Your task to perform on an android device: manage bookmarks in the chrome app Image 0: 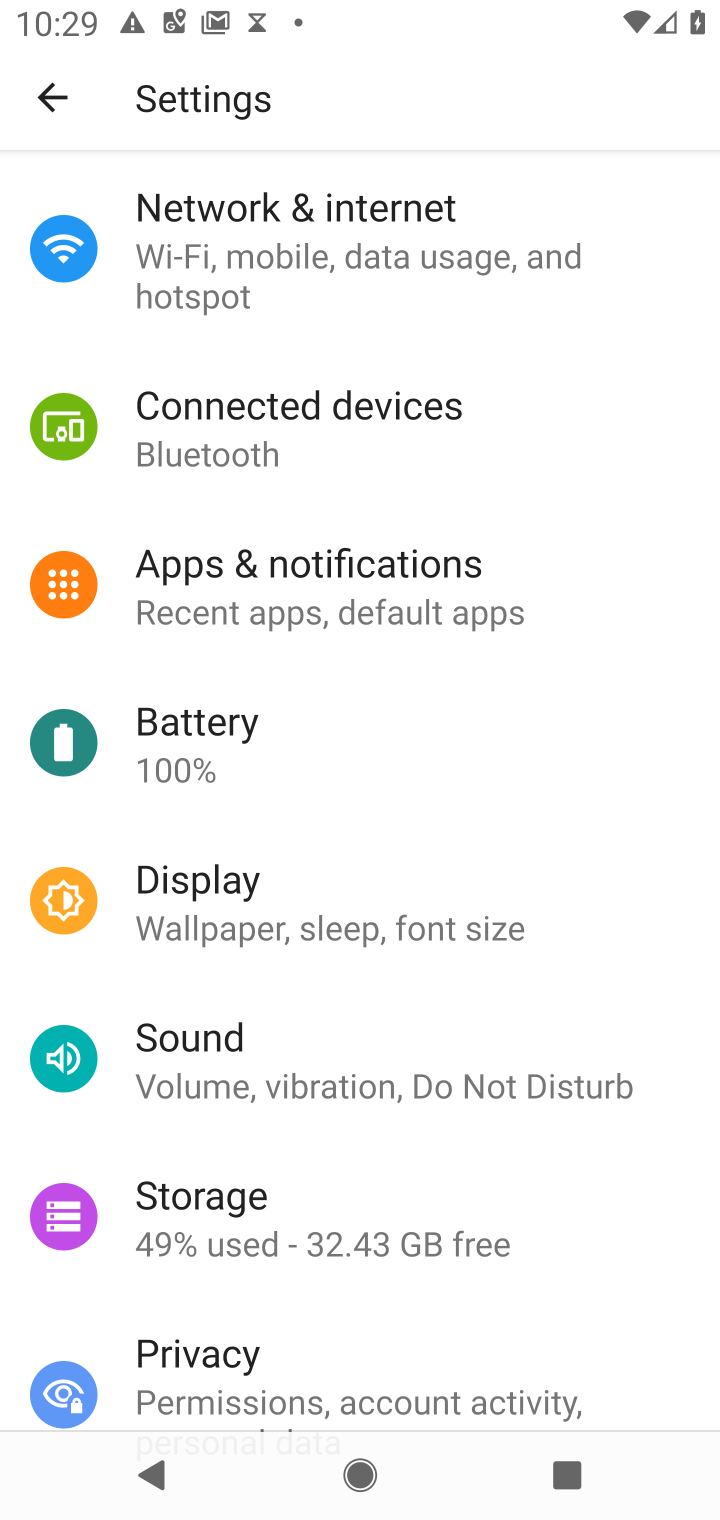
Step 0: press home button
Your task to perform on an android device: manage bookmarks in the chrome app Image 1: 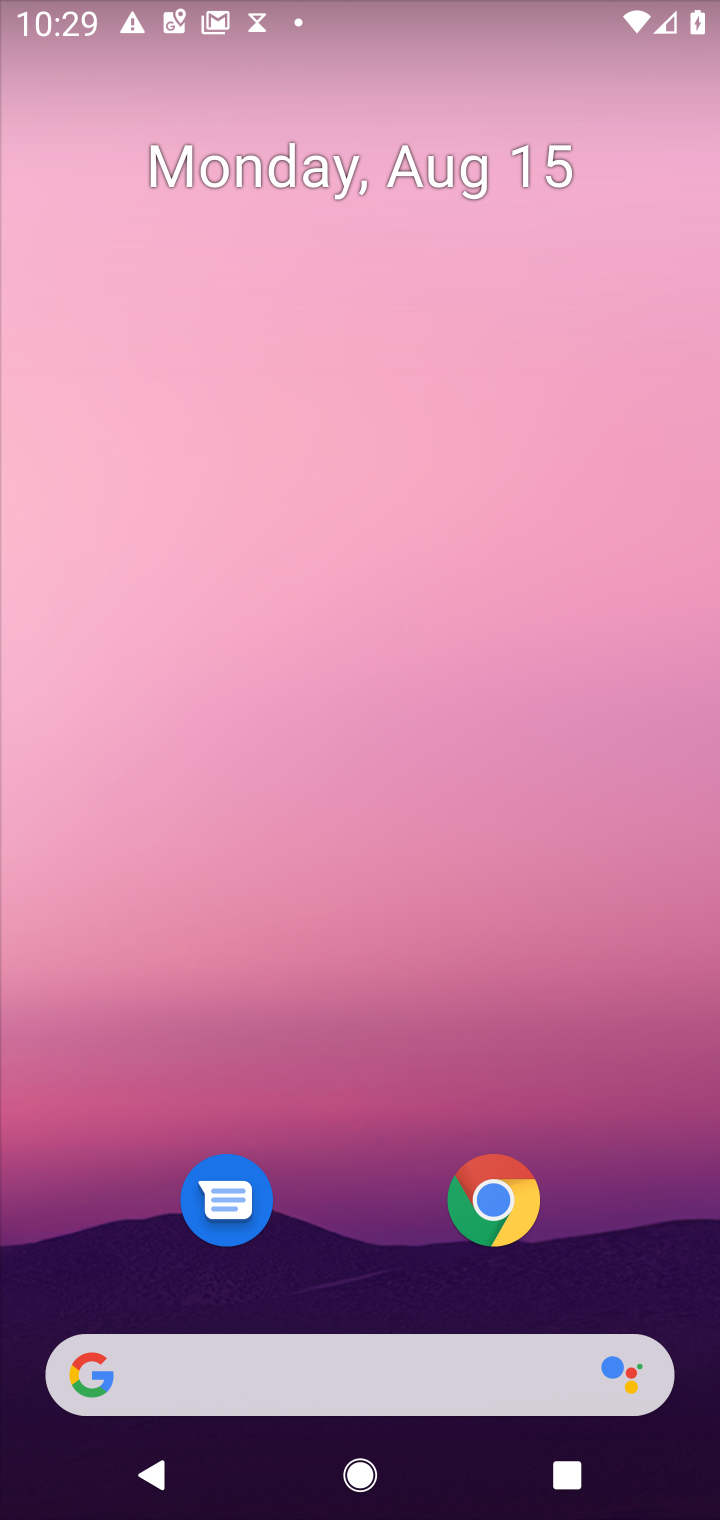
Step 1: click (516, 1196)
Your task to perform on an android device: manage bookmarks in the chrome app Image 2: 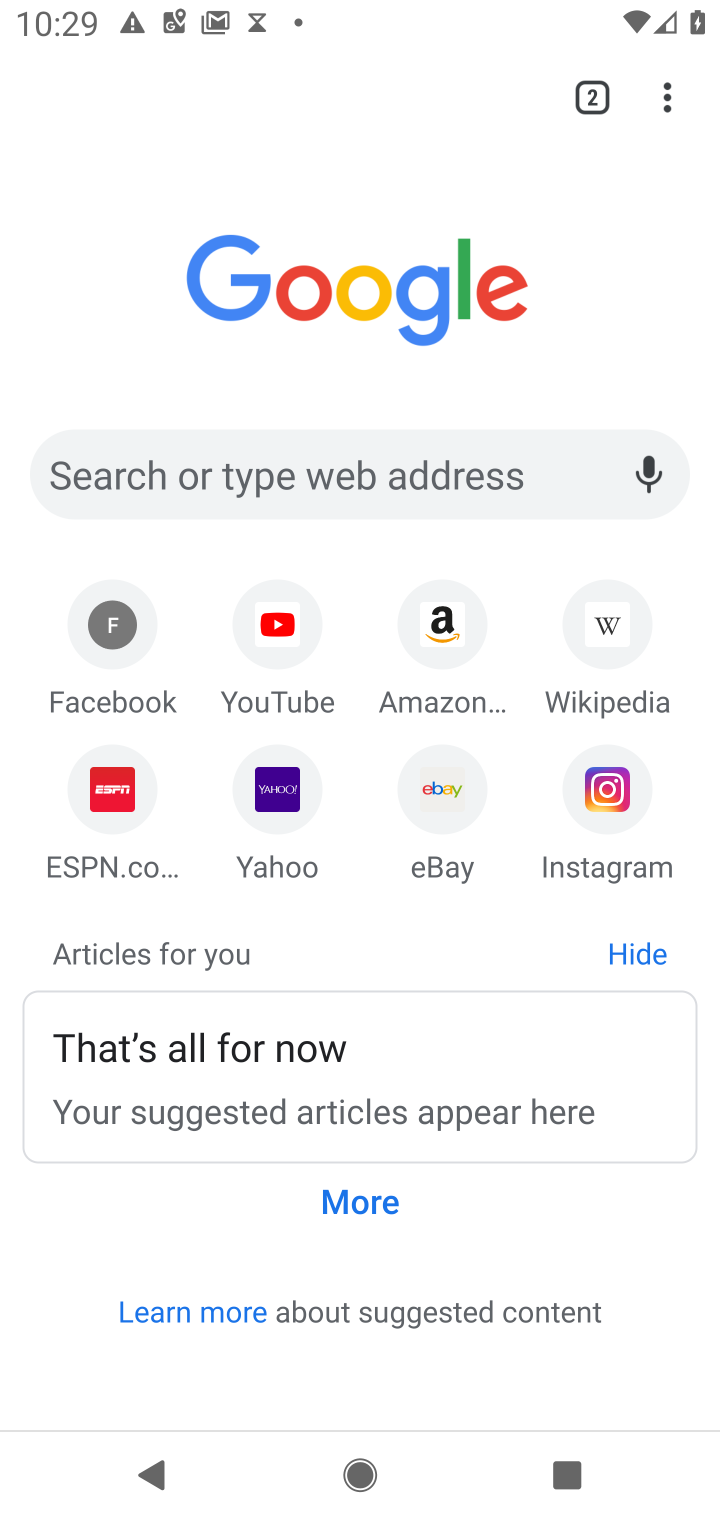
Step 2: click (668, 97)
Your task to perform on an android device: manage bookmarks in the chrome app Image 3: 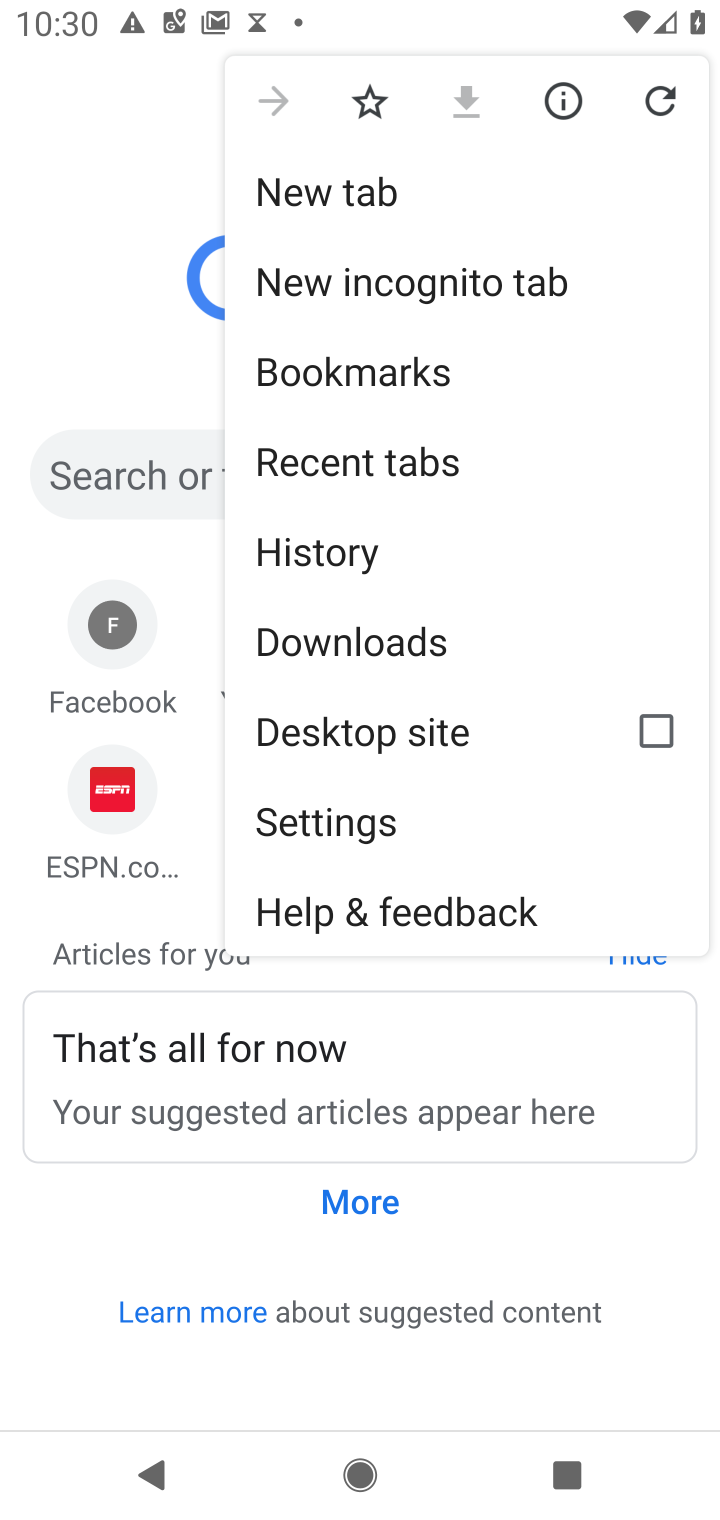
Step 3: click (397, 358)
Your task to perform on an android device: manage bookmarks in the chrome app Image 4: 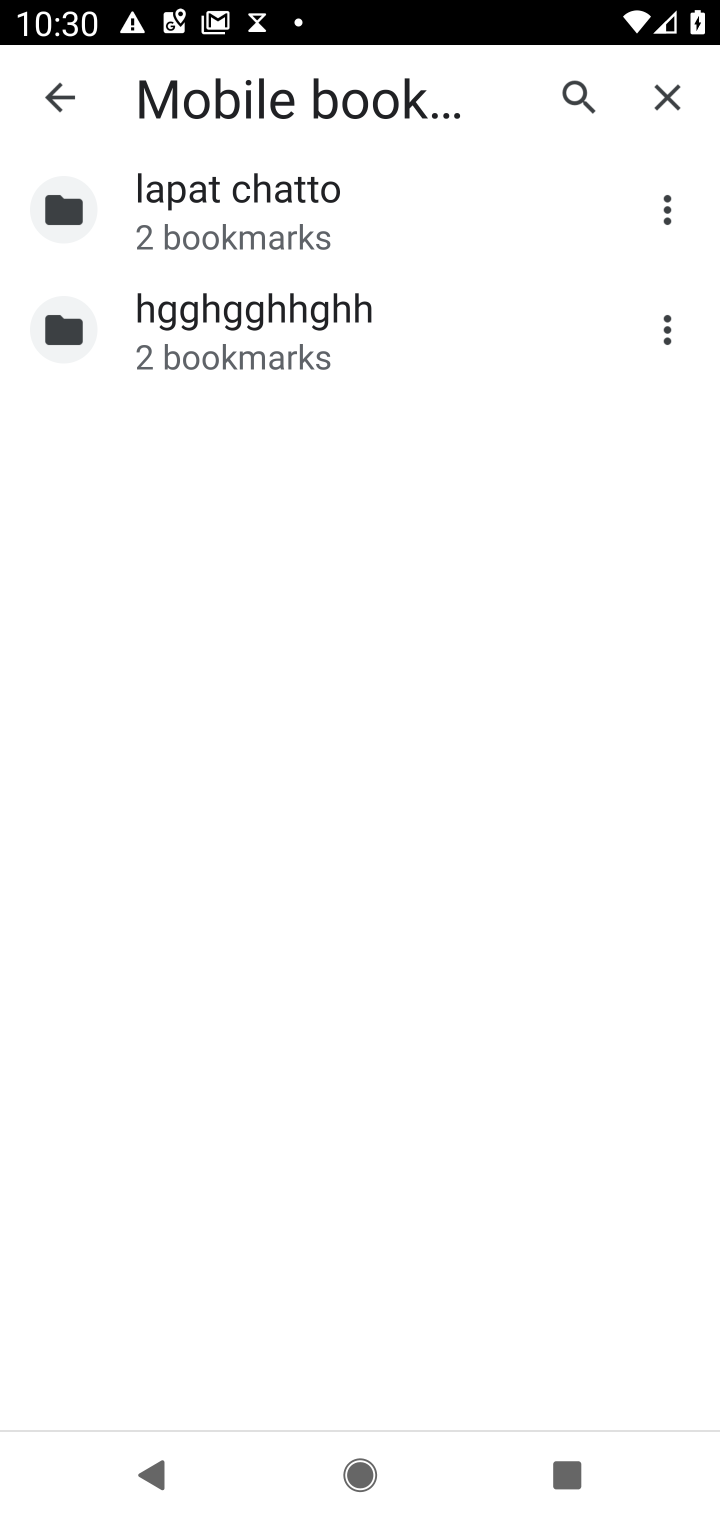
Step 4: click (230, 366)
Your task to perform on an android device: manage bookmarks in the chrome app Image 5: 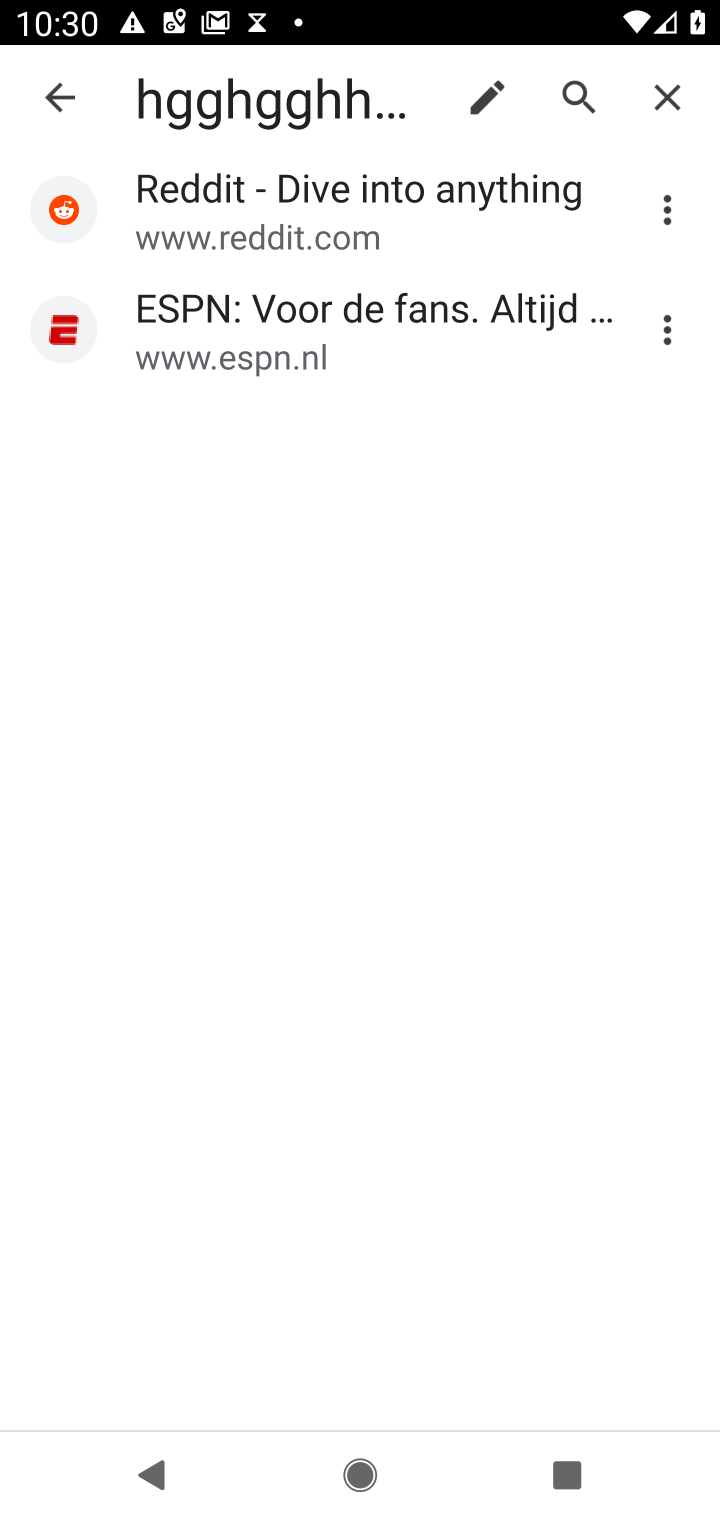
Step 5: click (660, 197)
Your task to perform on an android device: manage bookmarks in the chrome app Image 6: 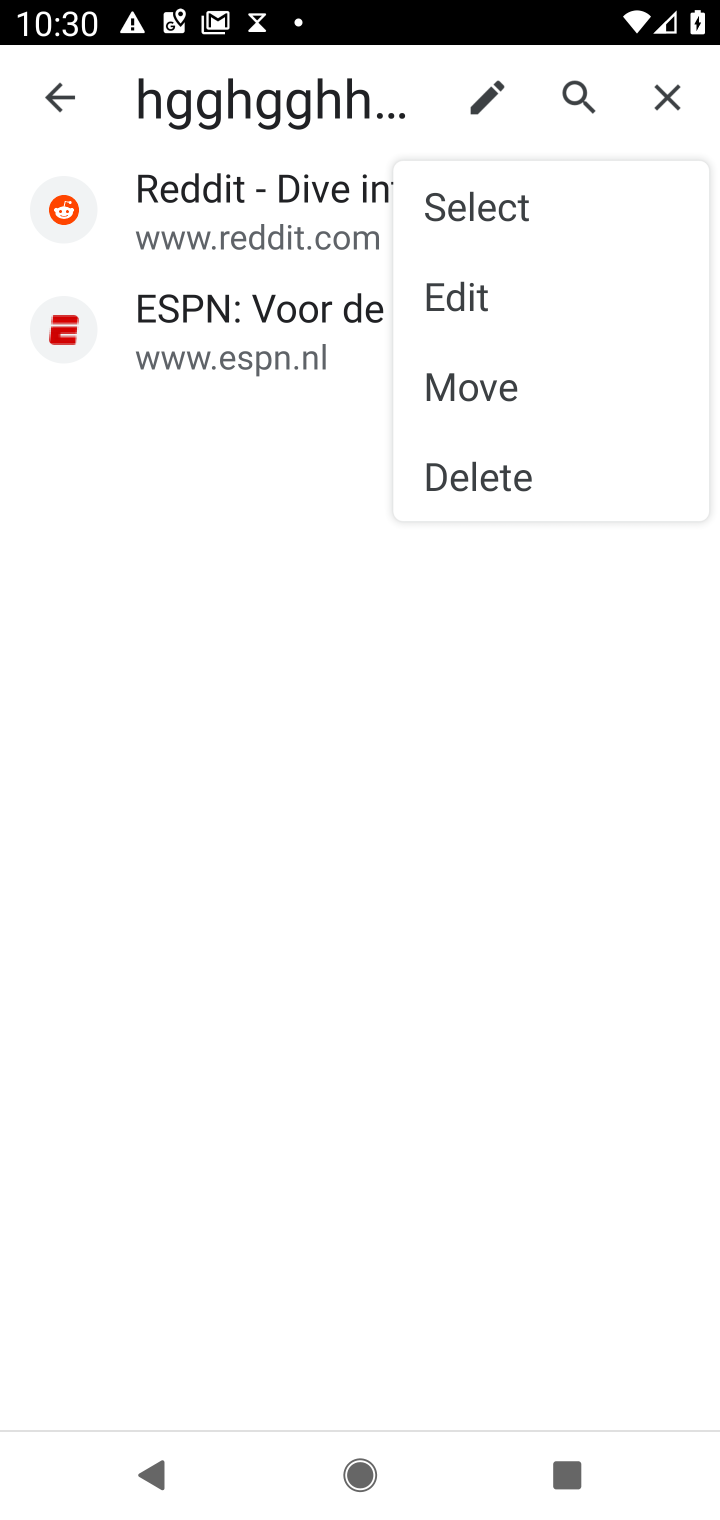
Step 6: click (479, 454)
Your task to perform on an android device: manage bookmarks in the chrome app Image 7: 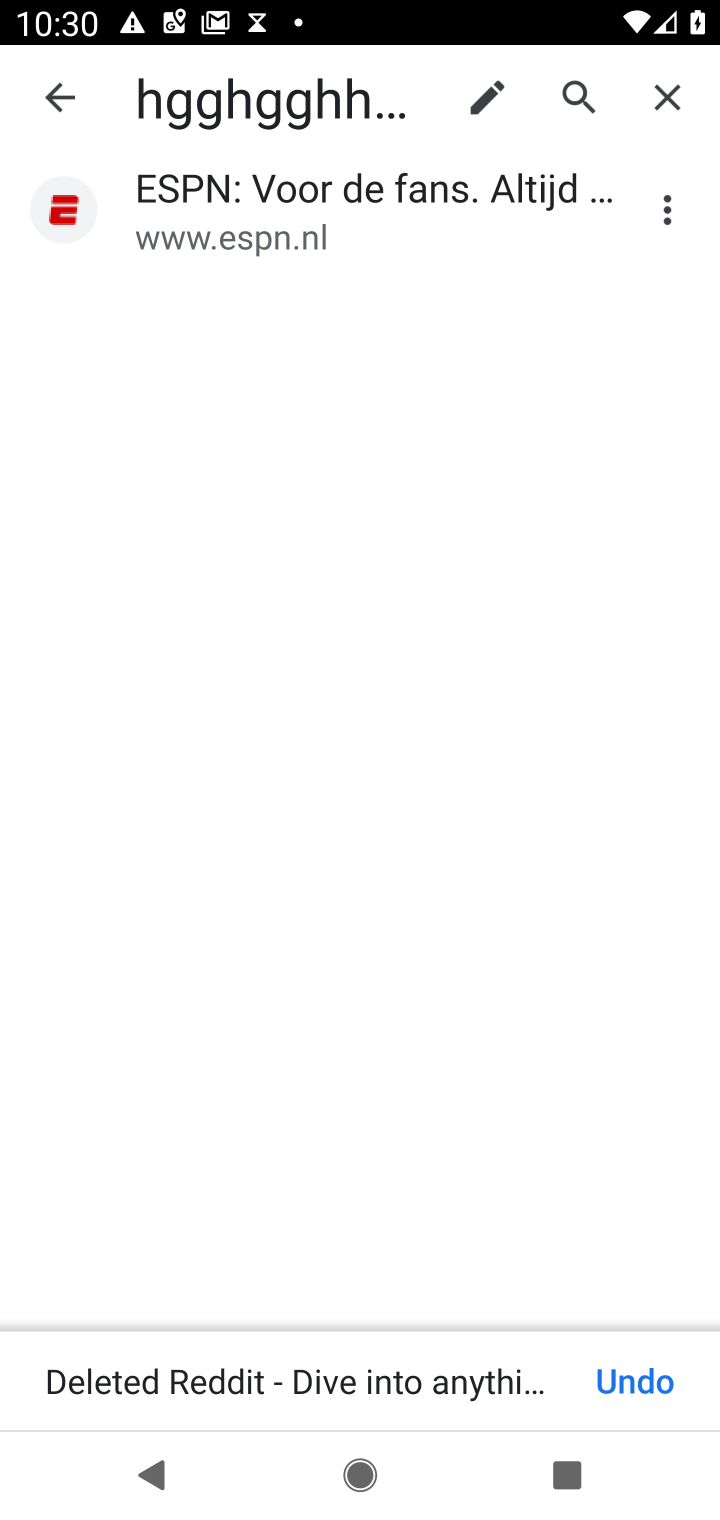
Step 7: task complete